Your task to perform on an android device: open a bookmark in the chrome app Image 0: 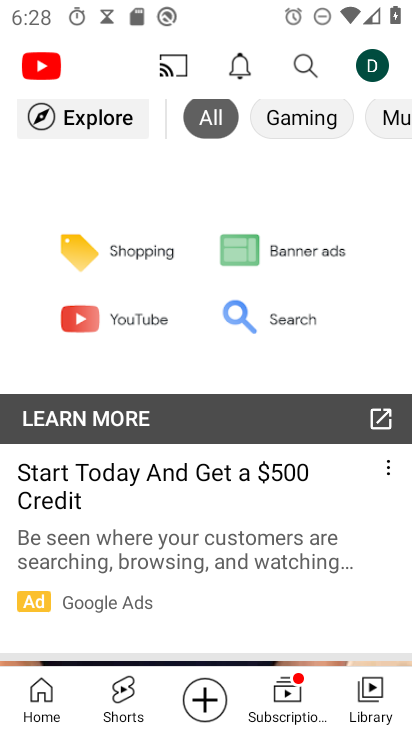
Step 0: press home button
Your task to perform on an android device: open a bookmark in the chrome app Image 1: 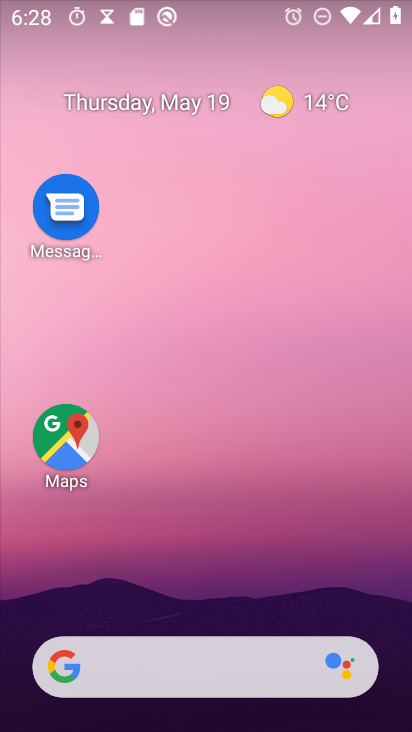
Step 1: drag from (199, 564) to (171, 157)
Your task to perform on an android device: open a bookmark in the chrome app Image 2: 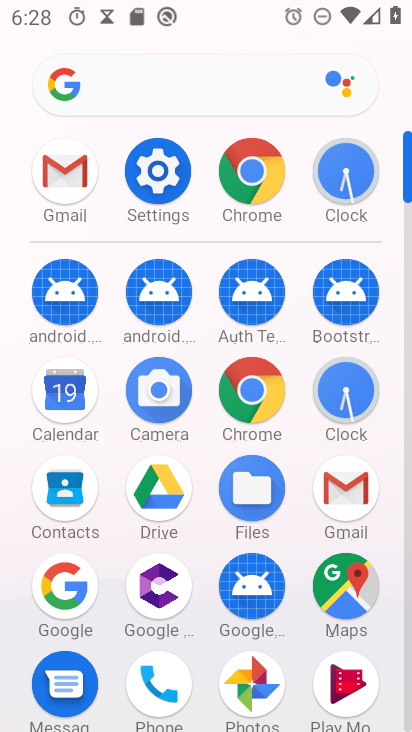
Step 2: click (253, 211)
Your task to perform on an android device: open a bookmark in the chrome app Image 3: 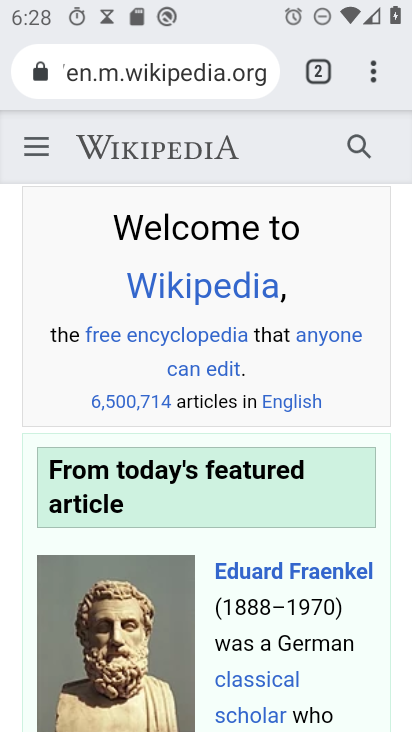
Step 3: click (376, 69)
Your task to perform on an android device: open a bookmark in the chrome app Image 4: 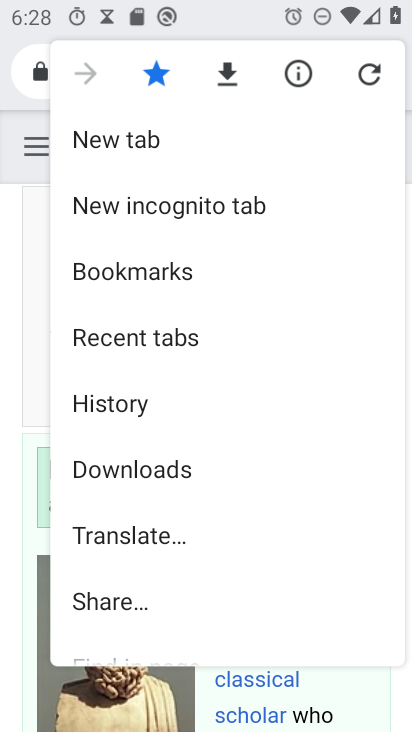
Step 4: click (142, 280)
Your task to perform on an android device: open a bookmark in the chrome app Image 5: 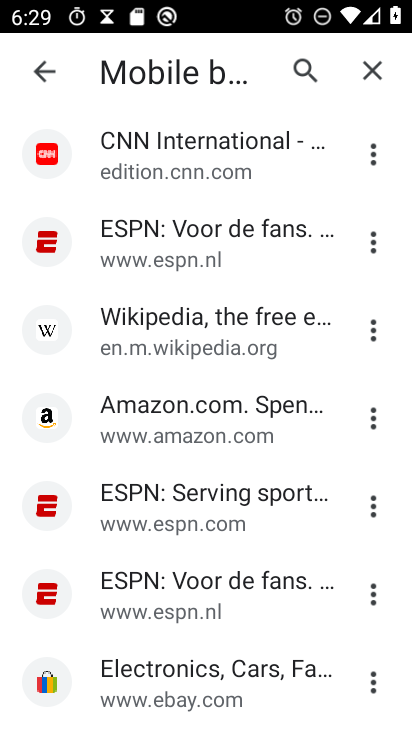
Step 5: click (149, 344)
Your task to perform on an android device: open a bookmark in the chrome app Image 6: 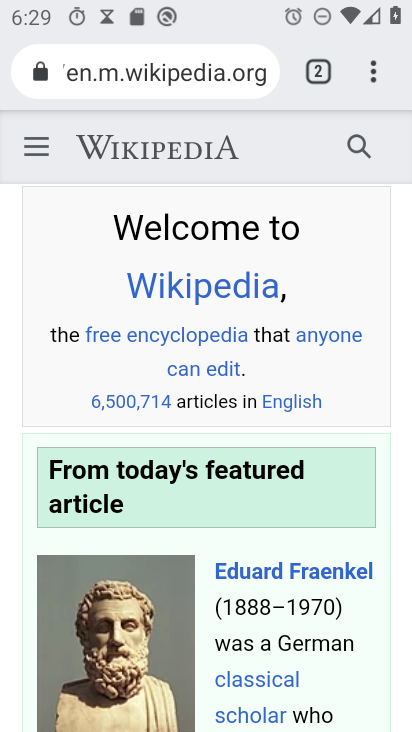
Step 6: task complete